Your task to perform on an android device: turn off location Image 0: 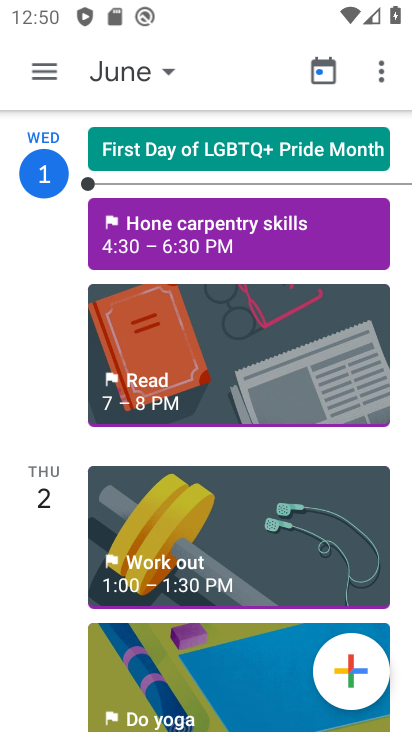
Step 0: press home button
Your task to perform on an android device: turn off location Image 1: 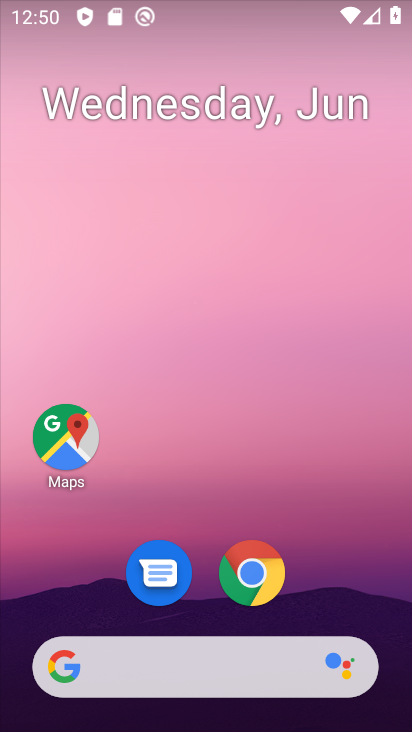
Step 1: drag from (354, 527) to (303, 199)
Your task to perform on an android device: turn off location Image 2: 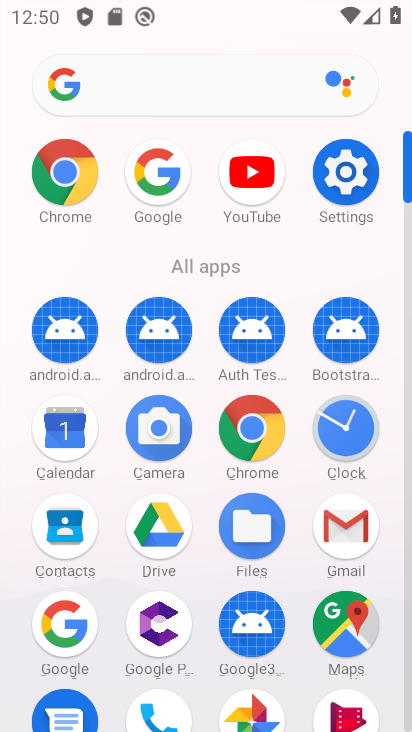
Step 2: click (327, 157)
Your task to perform on an android device: turn off location Image 3: 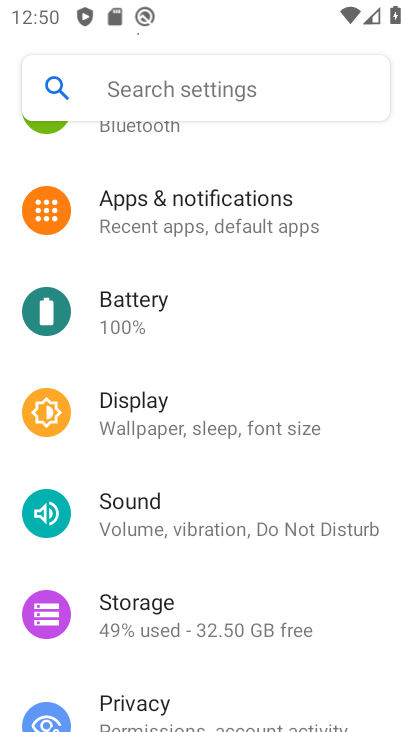
Step 3: drag from (269, 620) to (270, 263)
Your task to perform on an android device: turn off location Image 4: 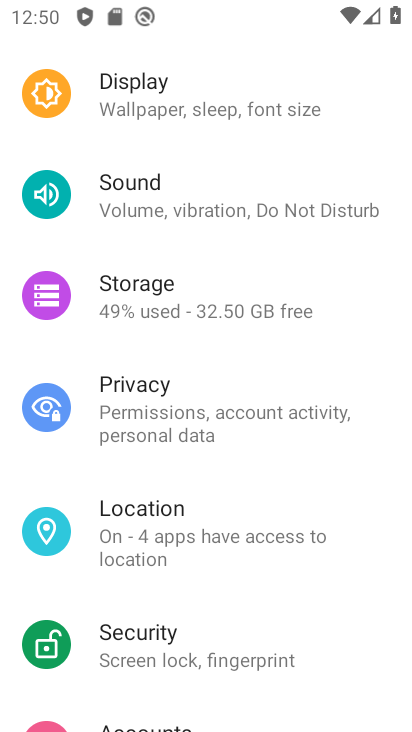
Step 4: click (211, 502)
Your task to perform on an android device: turn off location Image 5: 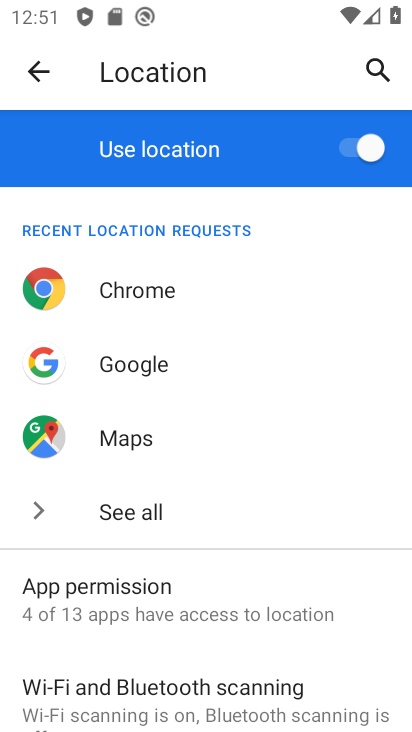
Step 5: drag from (382, 568) to (353, 289)
Your task to perform on an android device: turn off location Image 6: 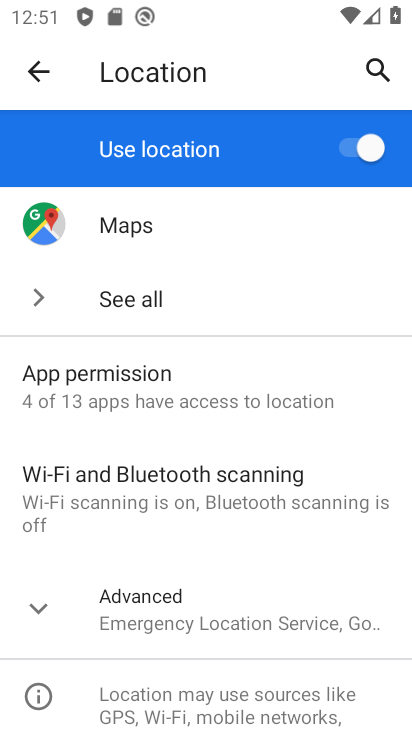
Step 6: click (357, 153)
Your task to perform on an android device: turn off location Image 7: 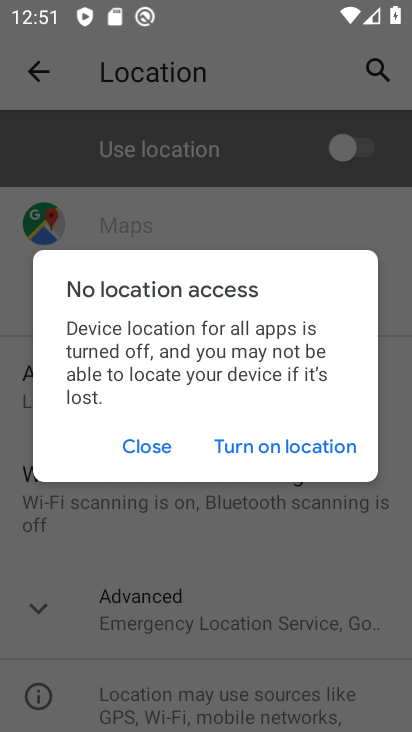
Step 7: task complete